Your task to perform on an android device: move a message to another label in the gmail app Image 0: 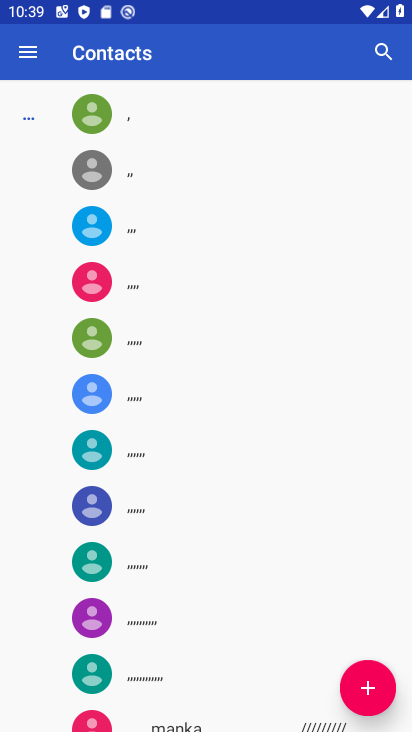
Step 0: task complete